Your task to perform on an android device: Search for pizza restaurants on Maps Image 0: 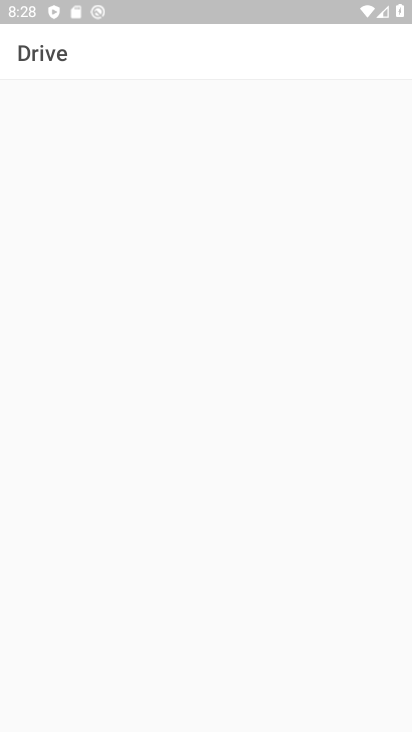
Step 0: press home button
Your task to perform on an android device: Search for pizza restaurants on Maps Image 1: 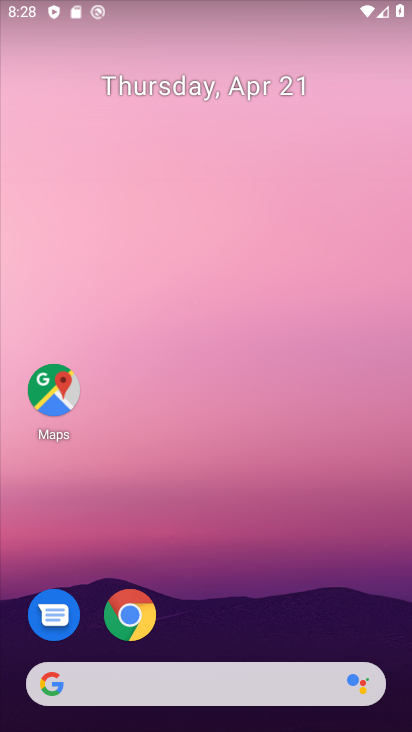
Step 1: click (56, 400)
Your task to perform on an android device: Search for pizza restaurants on Maps Image 2: 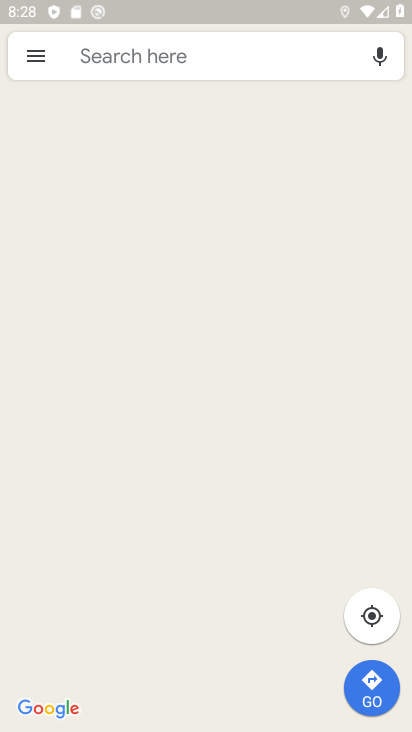
Step 2: click (160, 63)
Your task to perform on an android device: Search for pizza restaurants on Maps Image 3: 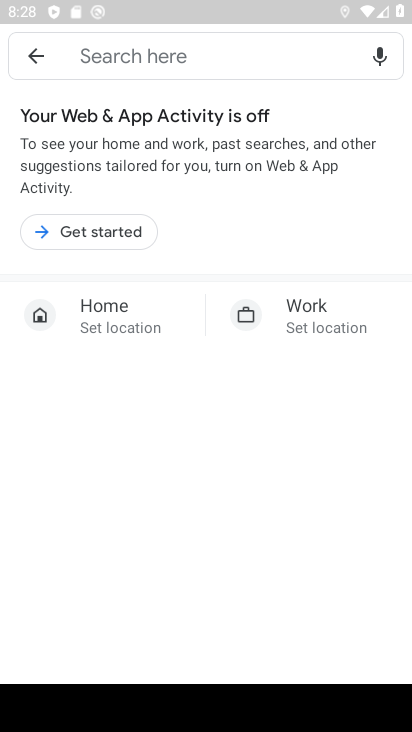
Step 3: click (129, 224)
Your task to perform on an android device: Search for pizza restaurants on Maps Image 4: 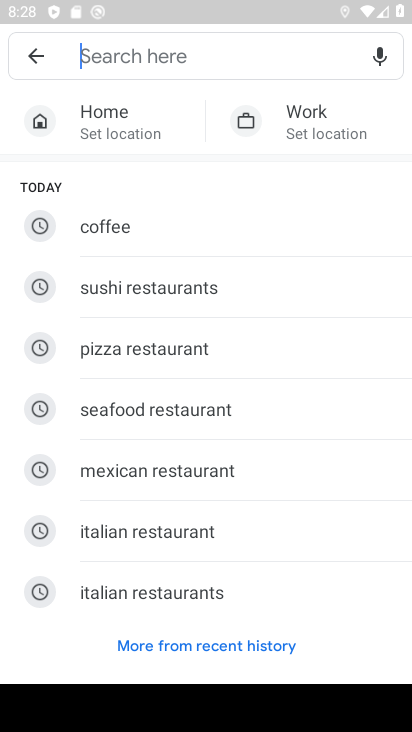
Step 4: click (143, 351)
Your task to perform on an android device: Search for pizza restaurants on Maps Image 5: 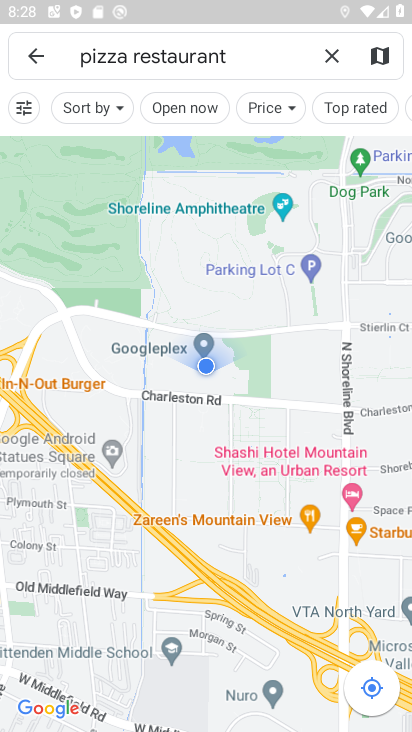
Step 5: task complete